Your task to perform on an android device: Search for "razer huntsman" on newegg.com, select the first entry, add it to the cart, then select checkout. Image 0: 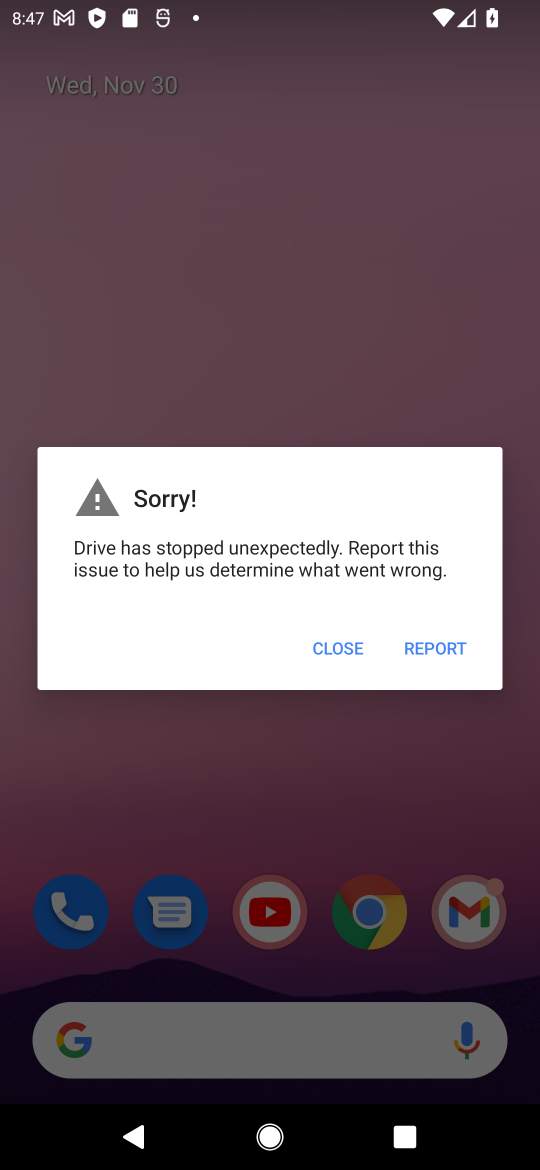
Step 0: press home button
Your task to perform on an android device: Search for "razer huntsman" on newegg.com, select the first entry, add it to the cart, then select checkout. Image 1: 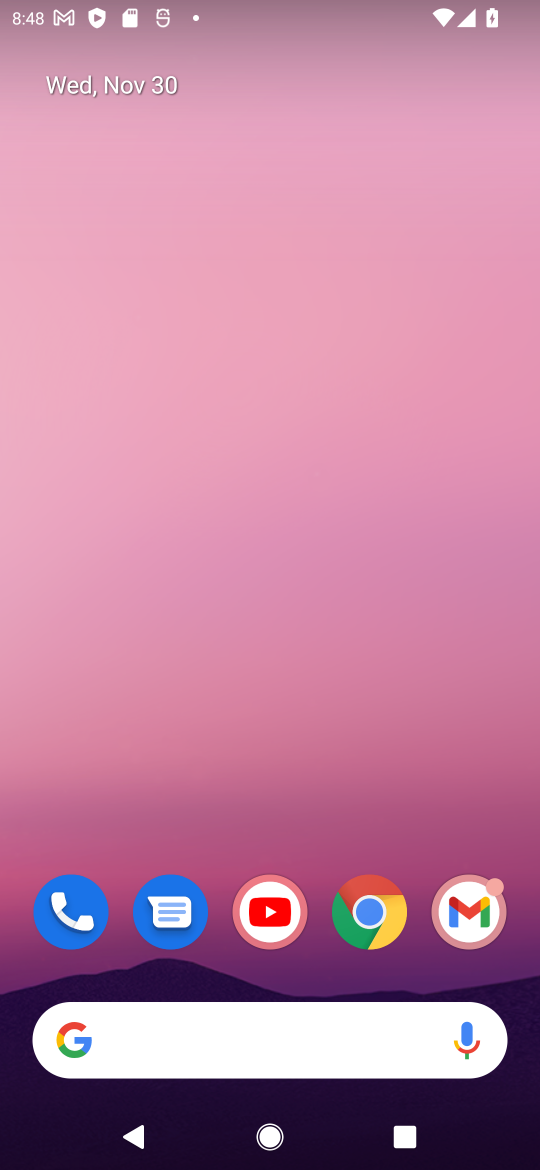
Step 1: click (161, 1045)
Your task to perform on an android device: Search for "razer huntsman" on newegg.com, select the first entry, add it to the cart, then select checkout. Image 2: 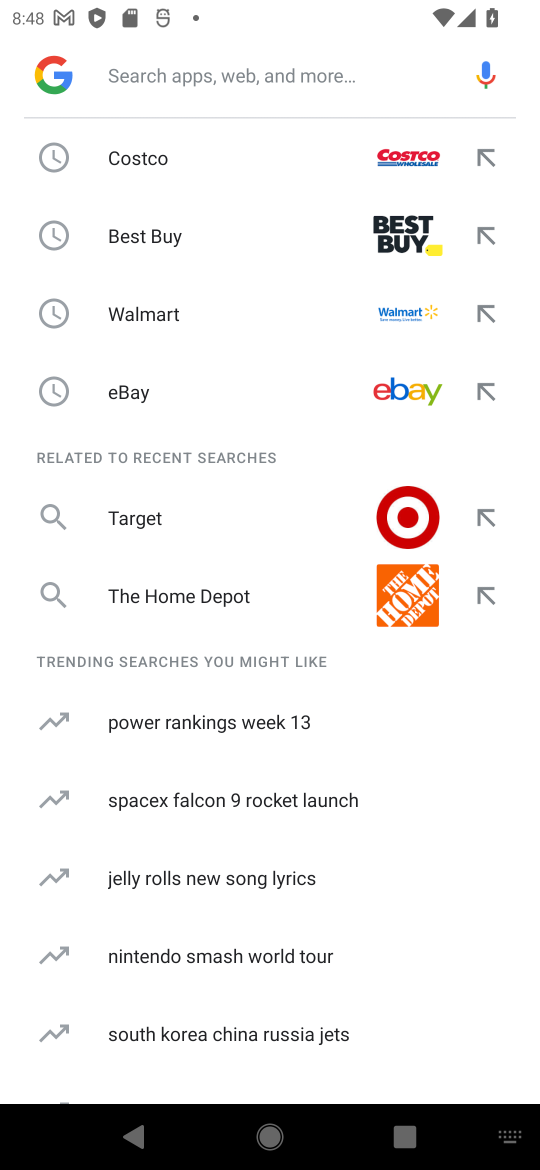
Step 2: type "newegg.com"
Your task to perform on an android device: Search for "razer huntsman" on newegg.com, select the first entry, add it to the cart, then select checkout. Image 3: 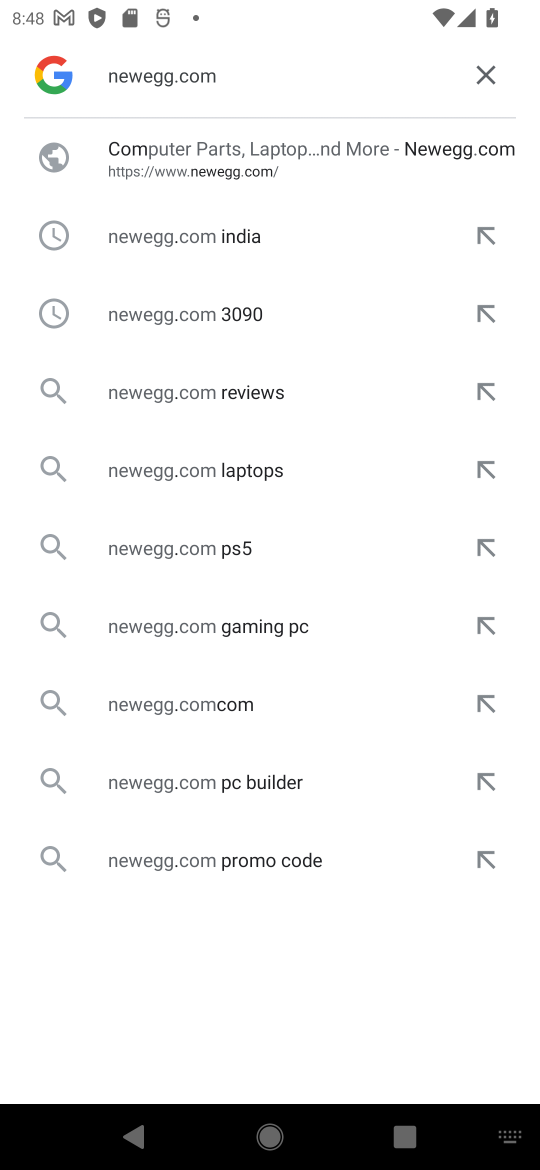
Step 3: click (190, 158)
Your task to perform on an android device: Search for "razer huntsman" on newegg.com, select the first entry, add it to the cart, then select checkout. Image 4: 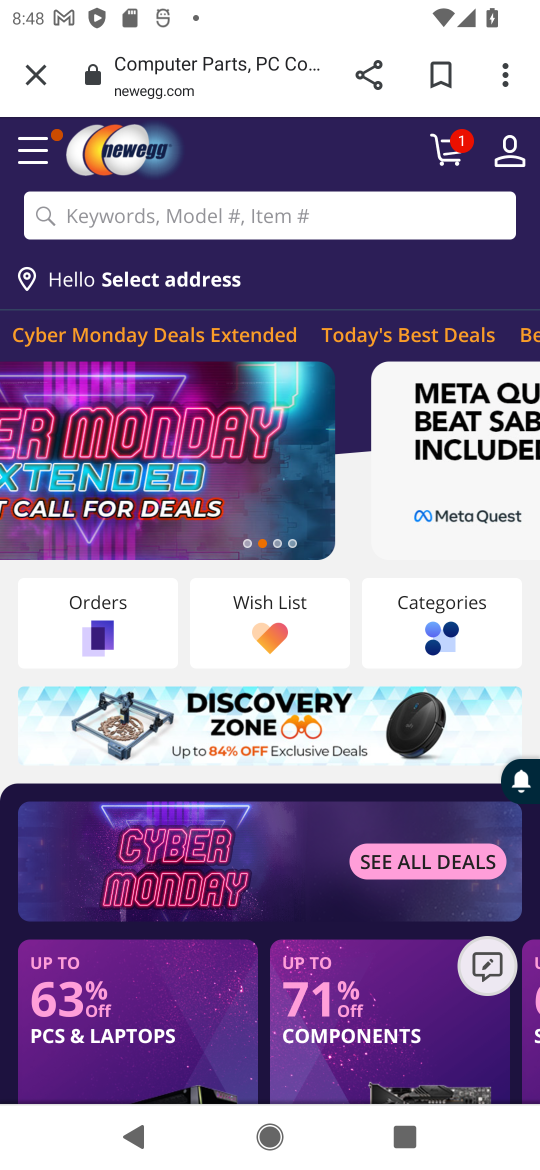
Step 4: click (212, 220)
Your task to perform on an android device: Search for "razer huntsman" on newegg.com, select the first entry, add it to the cart, then select checkout. Image 5: 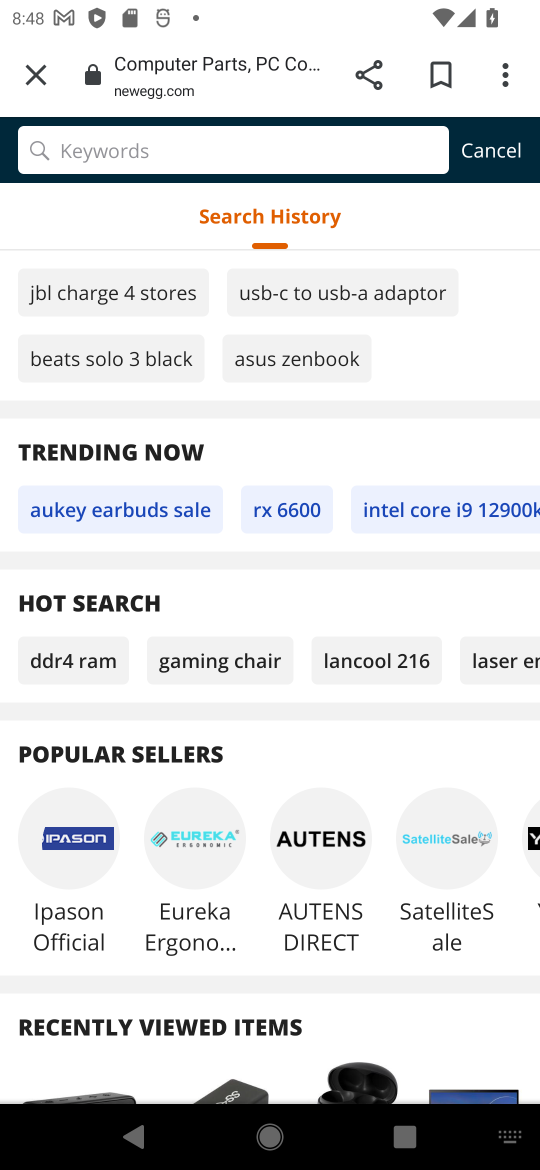
Step 5: type "razer huntsman"
Your task to perform on an android device: Search for "razer huntsman" on newegg.com, select the first entry, add it to the cart, then select checkout. Image 6: 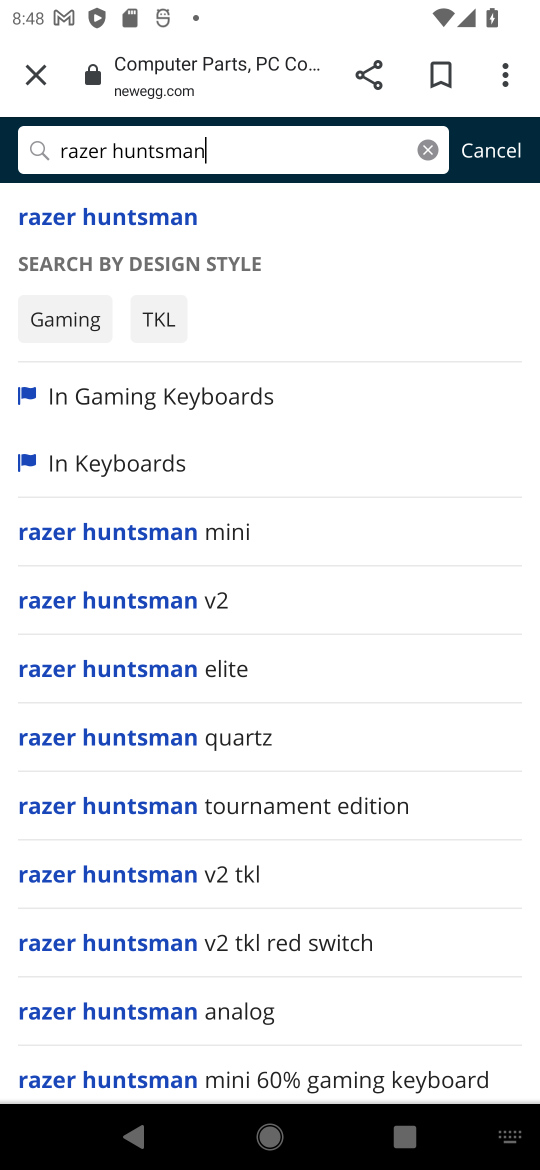
Step 6: click (137, 209)
Your task to perform on an android device: Search for "razer huntsman" on newegg.com, select the first entry, add it to the cart, then select checkout. Image 7: 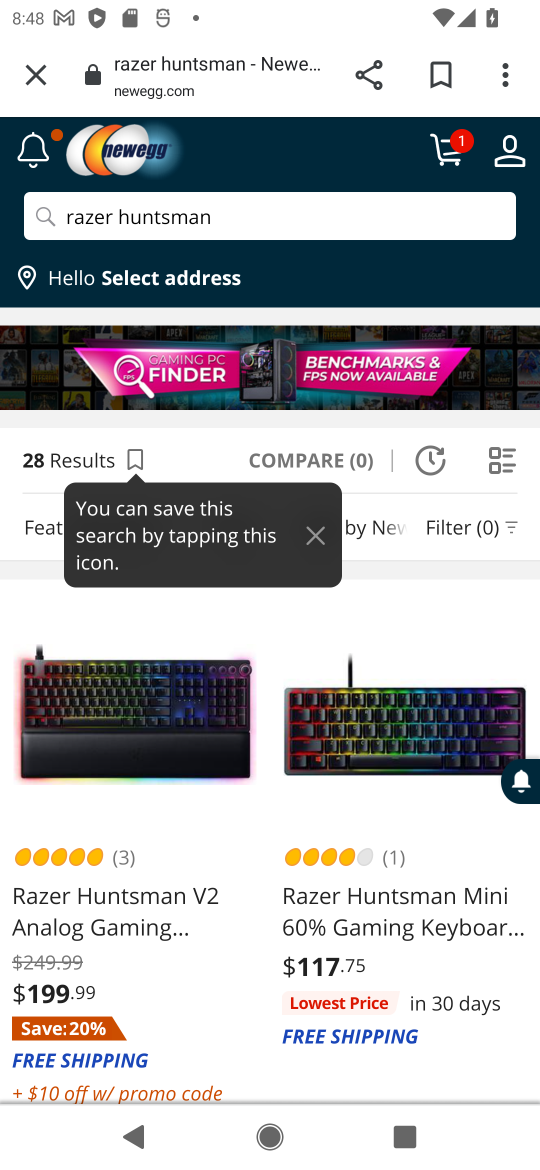
Step 7: click (166, 744)
Your task to perform on an android device: Search for "razer huntsman" on newegg.com, select the first entry, add it to the cart, then select checkout. Image 8: 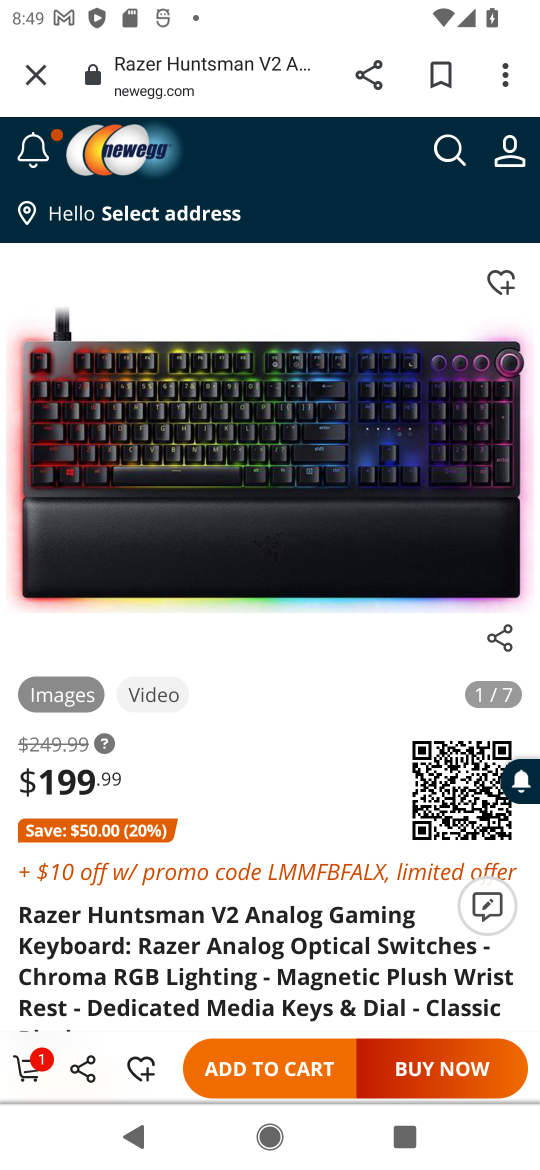
Step 8: click (259, 1078)
Your task to perform on an android device: Search for "razer huntsman" on newegg.com, select the first entry, add it to the cart, then select checkout. Image 9: 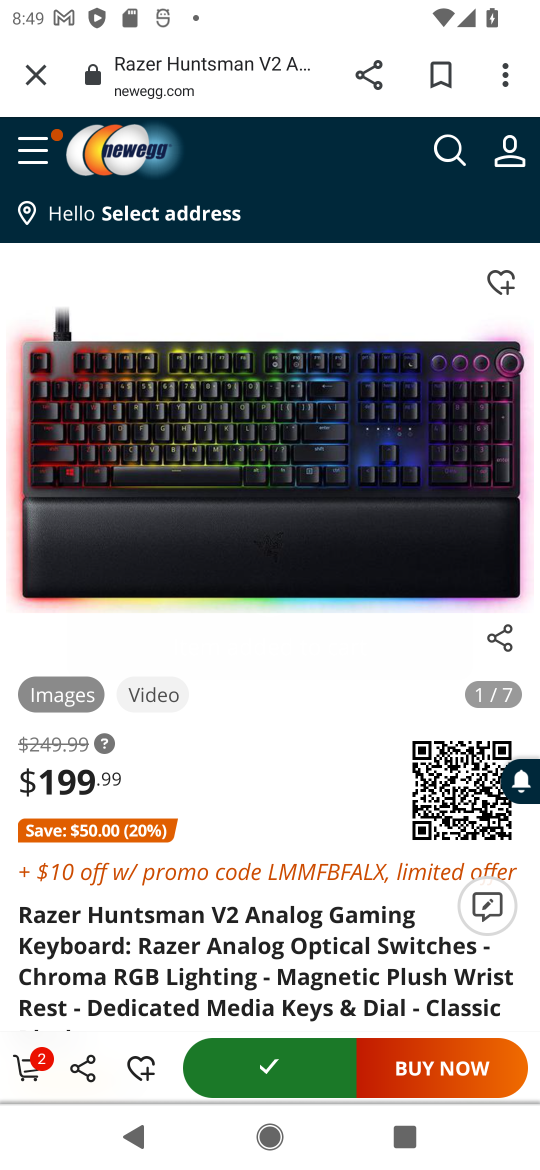
Step 9: click (24, 1068)
Your task to perform on an android device: Search for "razer huntsman" on newegg.com, select the first entry, add it to the cart, then select checkout. Image 10: 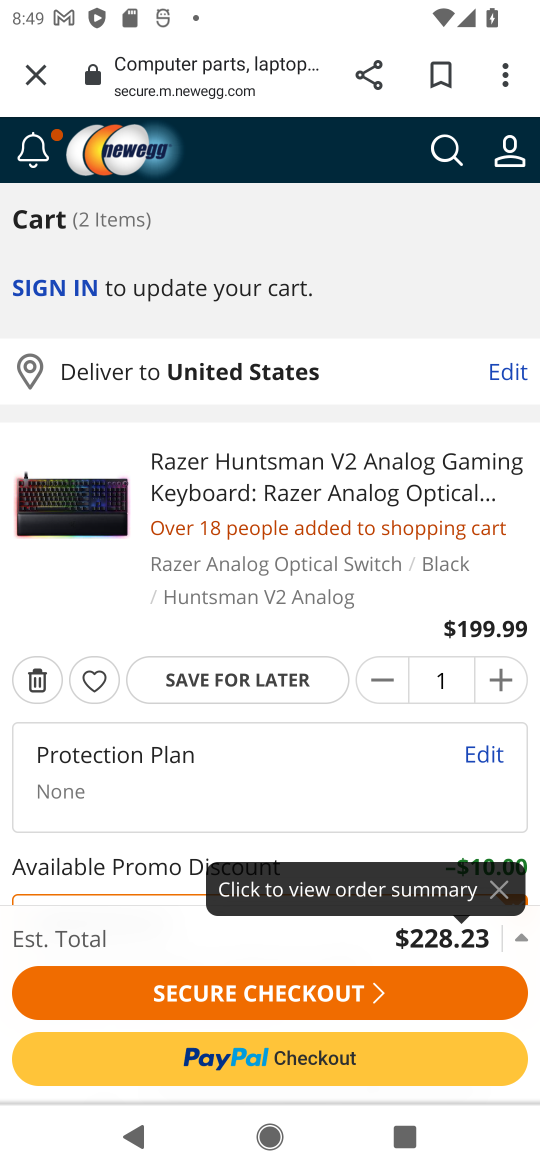
Step 10: click (237, 993)
Your task to perform on an android device: Search for "razer huntsman" on newegg.com, select the first entry, add it to the cart, then select checkout. Image 11: 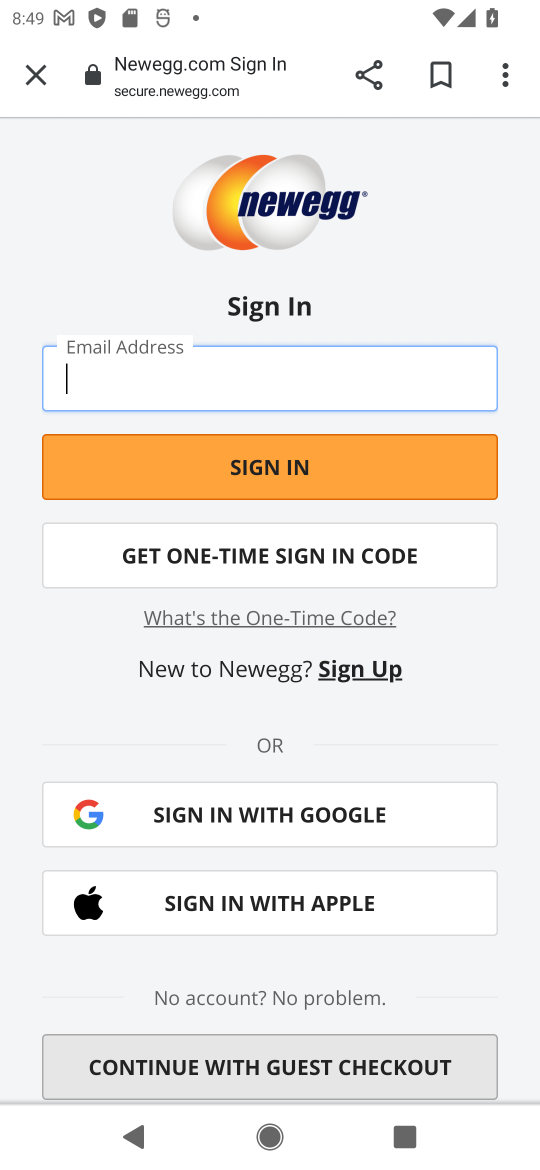
Step 11: task complete